Your task to perform on an android device: open app "Google Calendar" Image 0: 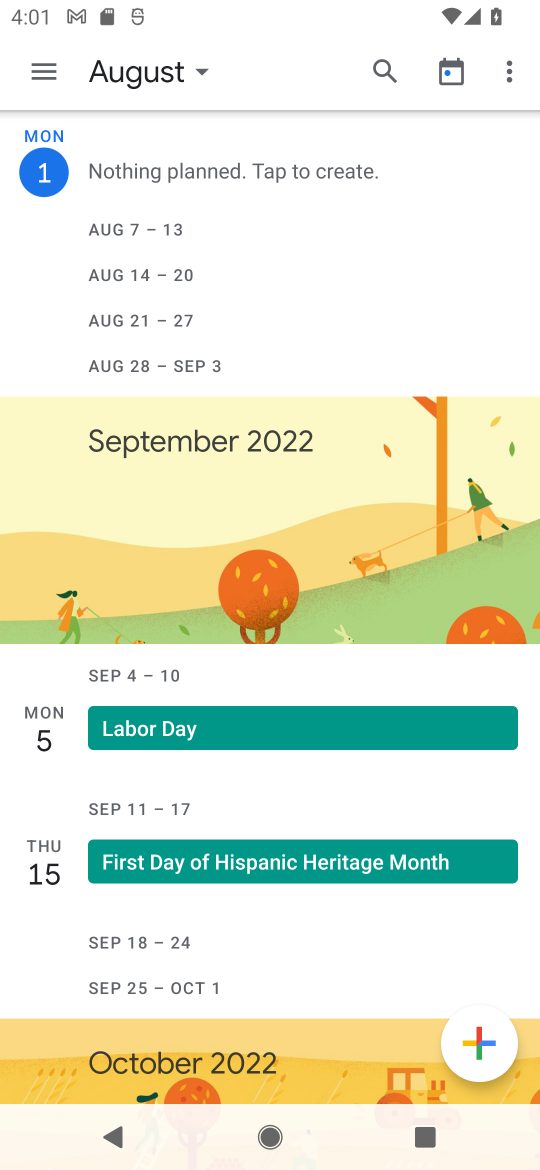
Step 0: press home button
Your task to perform on an android device: open app "Google Calendar" Image 1: 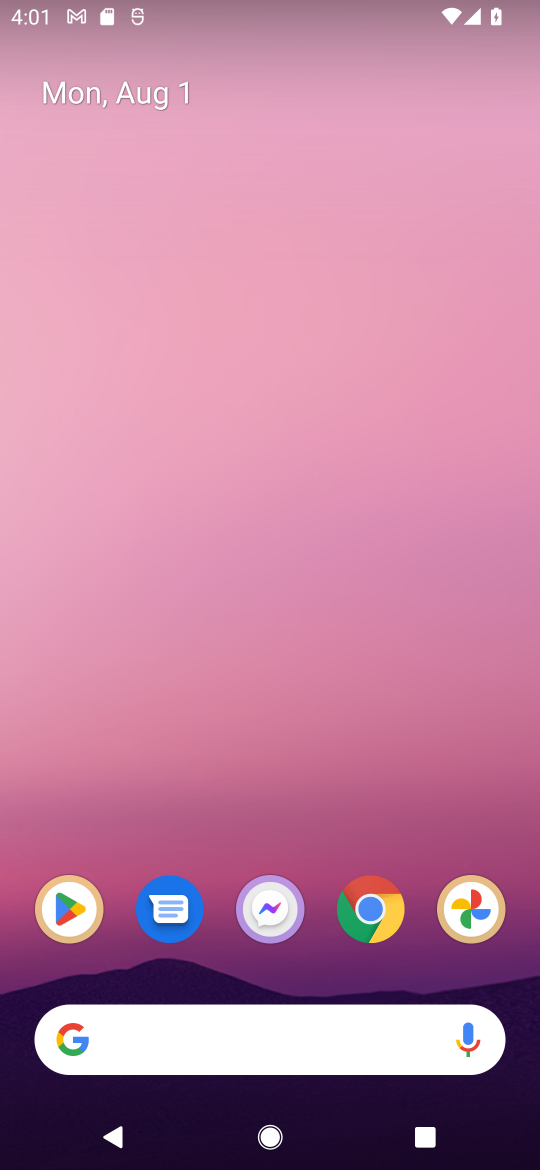
Step 1: drag from (336, 853) to (364, 103)
Your task to perform on an android device: open app "Google Calendar" Image 2: 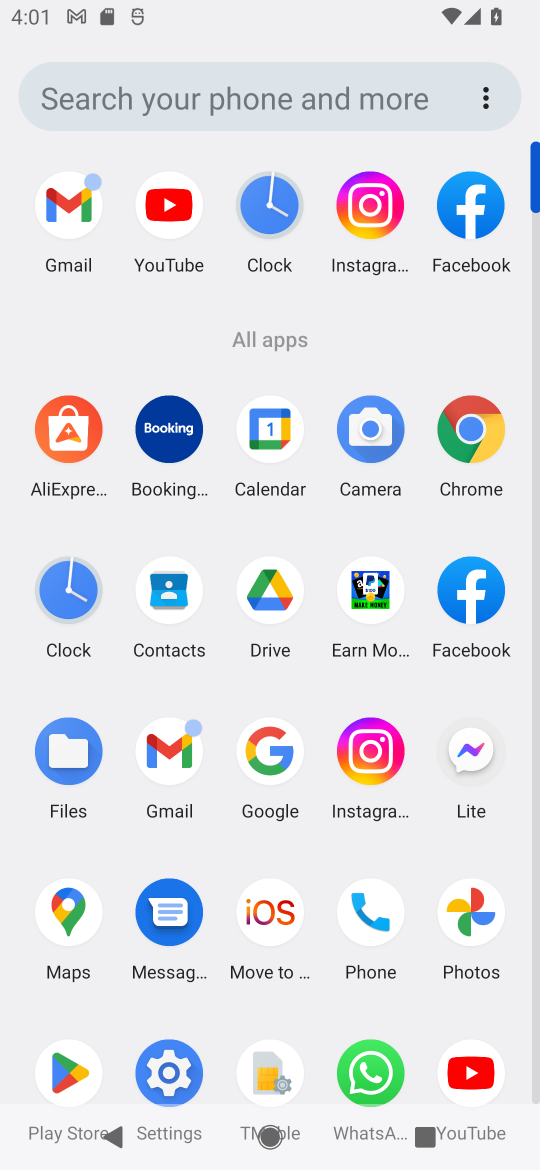
Step 2: click (259, 462)
Your task to perform on an android device: open app "Google Calendar" Image 3: 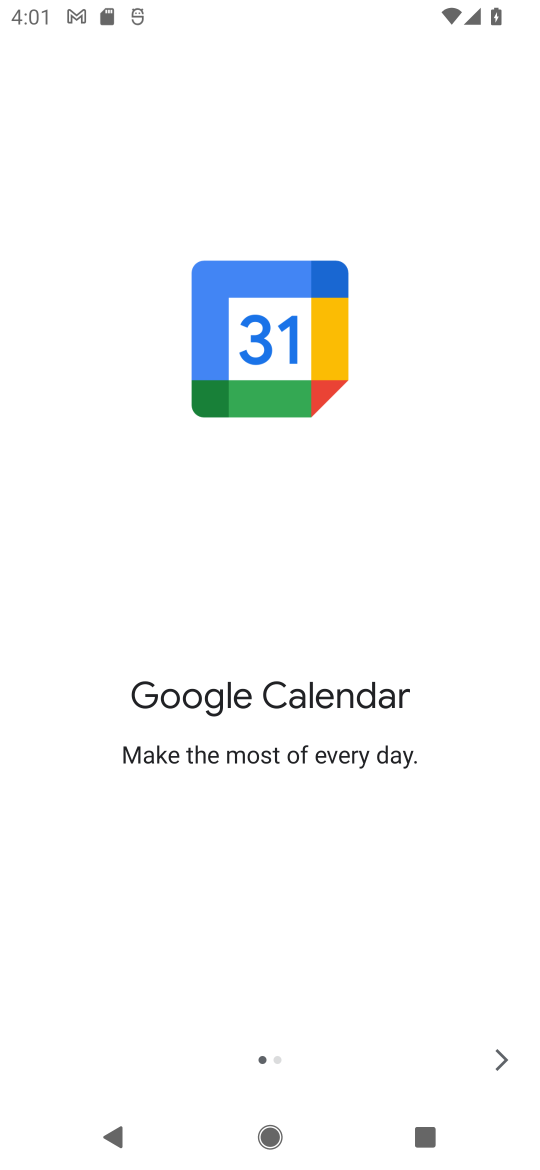
Step 3: click (488, 1063)
Your task to perform on an android device: open app "Google Calendar" Image 4: 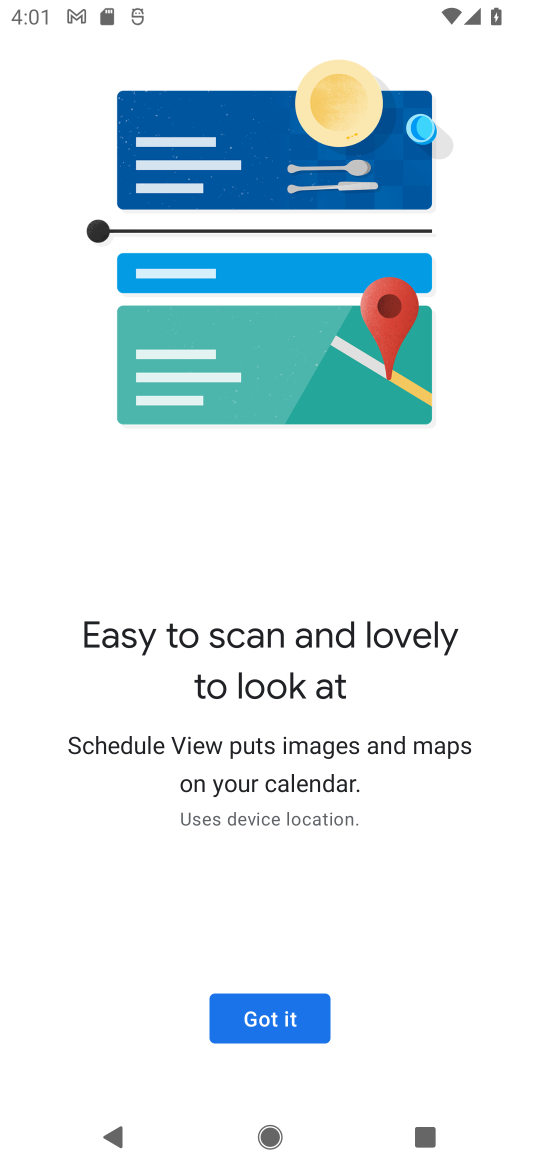
Step 4: click (286, 1016)
Your task to perform on an android device: open app "Google Calendar" Image 5: 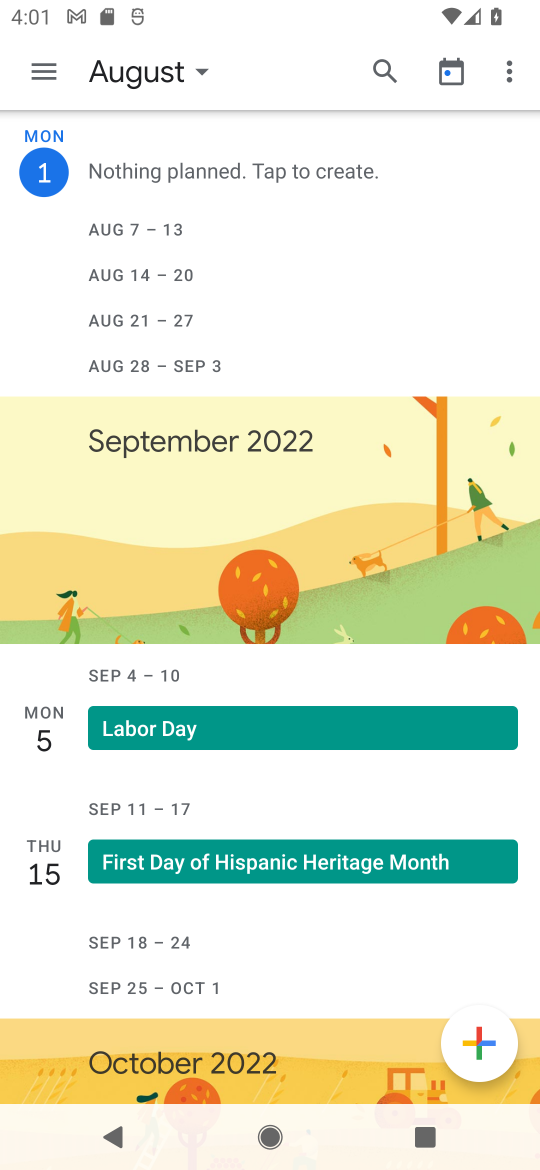
Step 5: task complete